Your task to perform on an android device: toggle javascript in the chrome app Image 0: 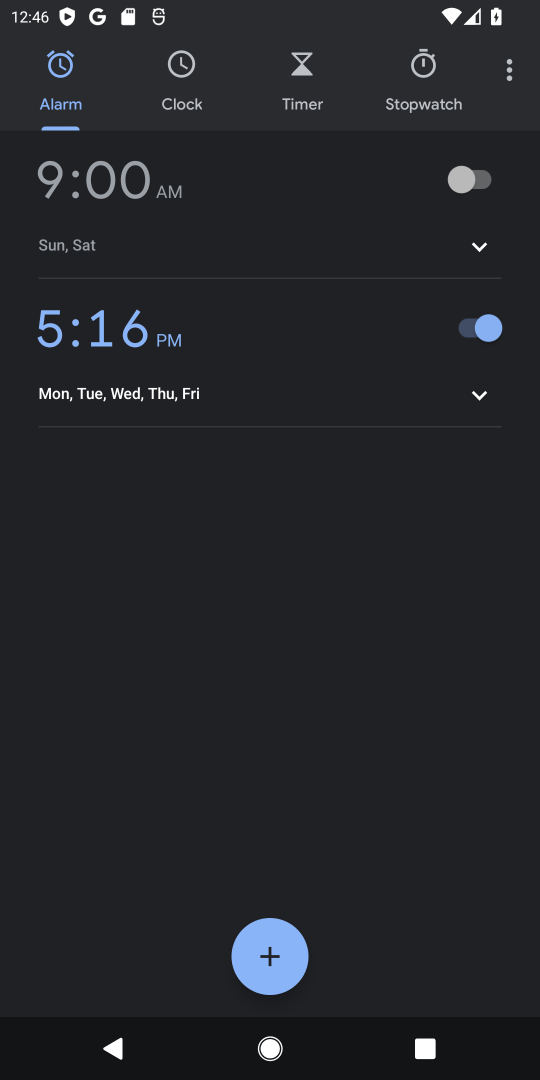
Step 0: press home button
Your task to perform on an android device: toggle javascript in the chrome app Image 1: 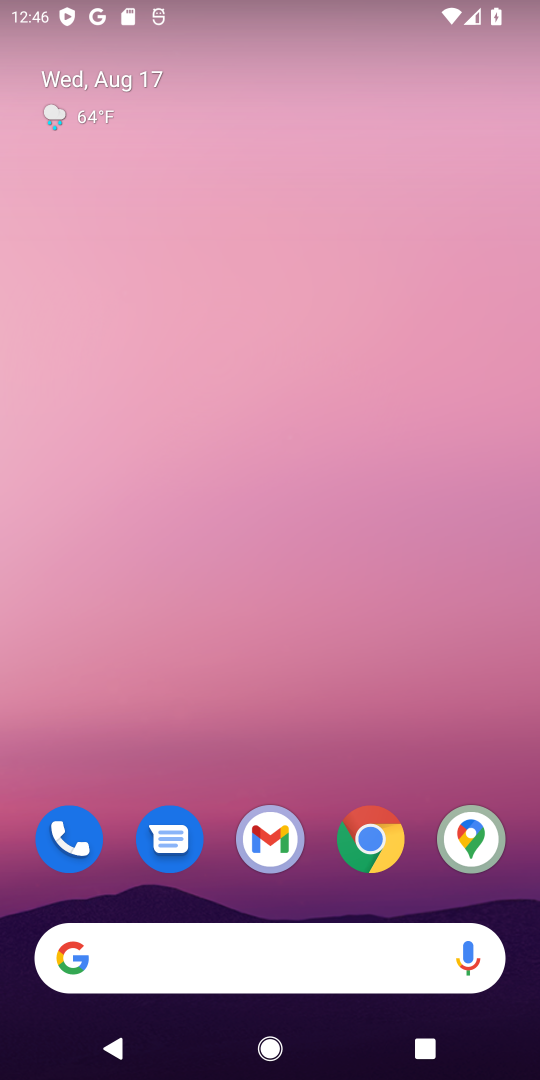
Step 1: click (369, 837)
Your task to perform on an android device: toggle javascript in the chrome app Image 2: 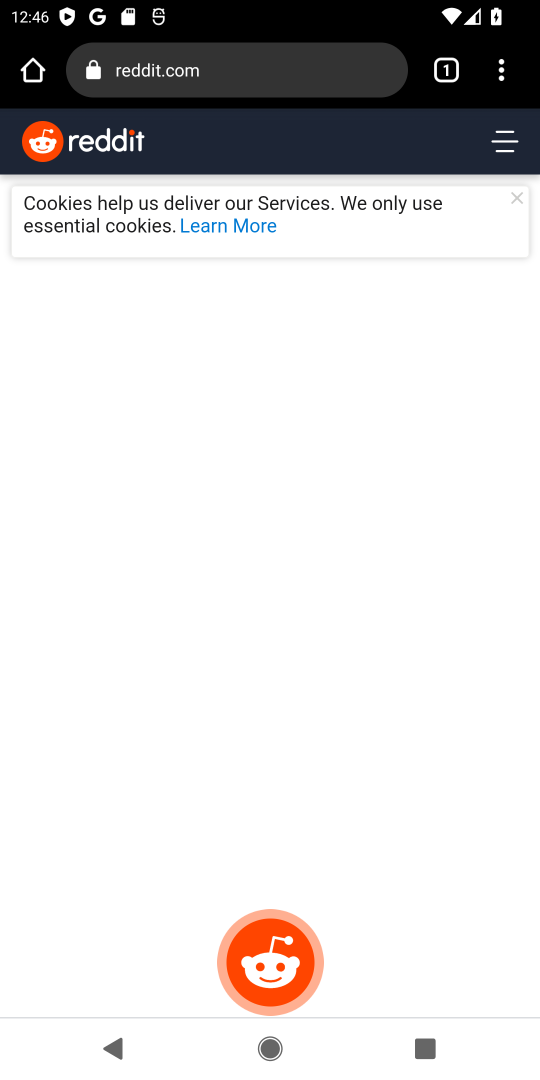
Step 2: drag from (501, 80) to (281, 894)
Your task to perform on an android device: toggle javascript in the chrome app Image 3: 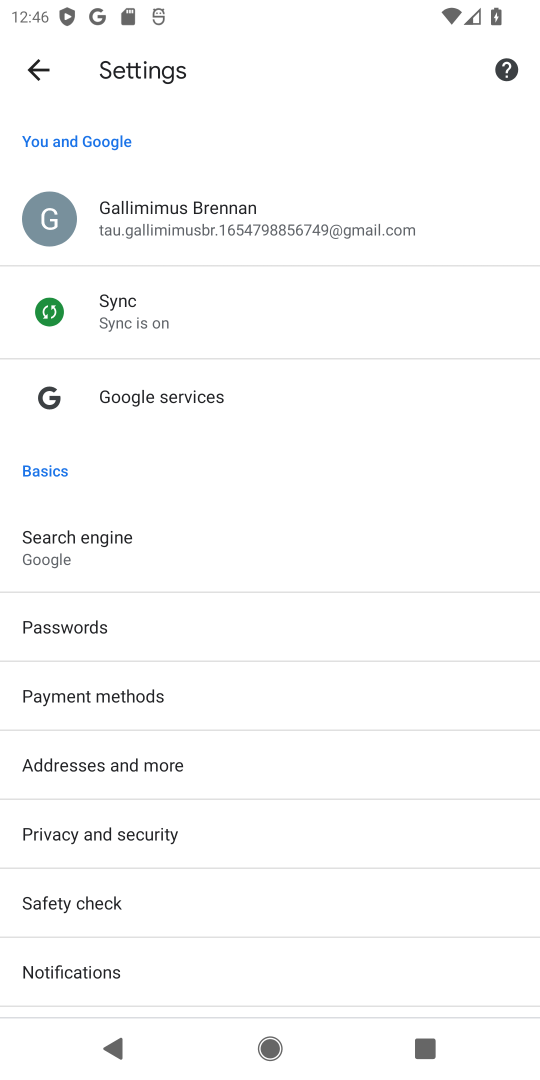
Step 3: drag from (94, 817) to (157, 553)
Your task to perform on an android device: toggle javascript in the chrome app Image 4: 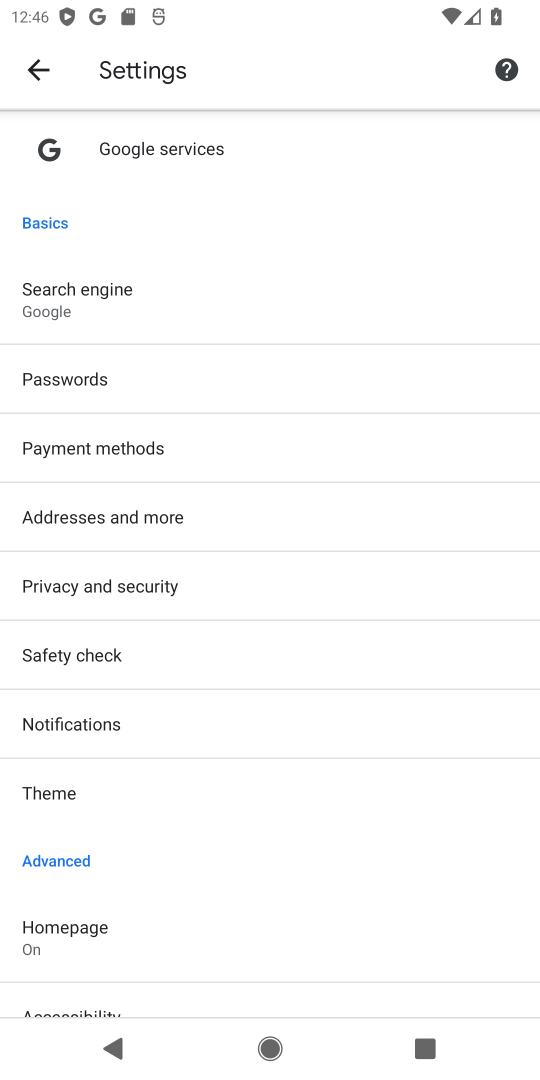
Step 4: drag from (99, 815) to (205, 594)
Your task to perform on an android device: toggle javascript in the chrome app Image 5: 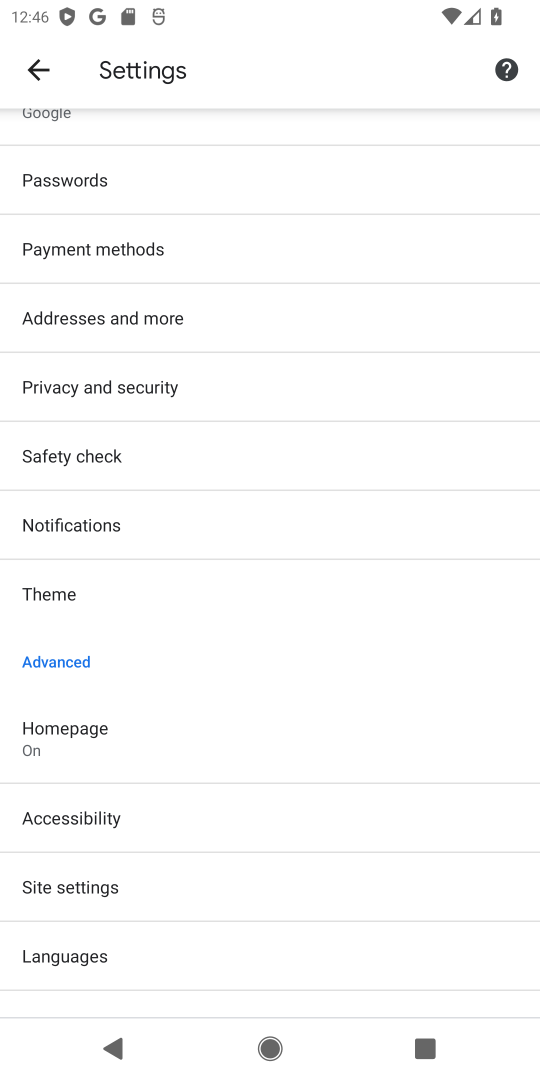
Step 5: click (64, 887)
Your task to perform on an android device: toggle javascript in the chrome app Image 6: 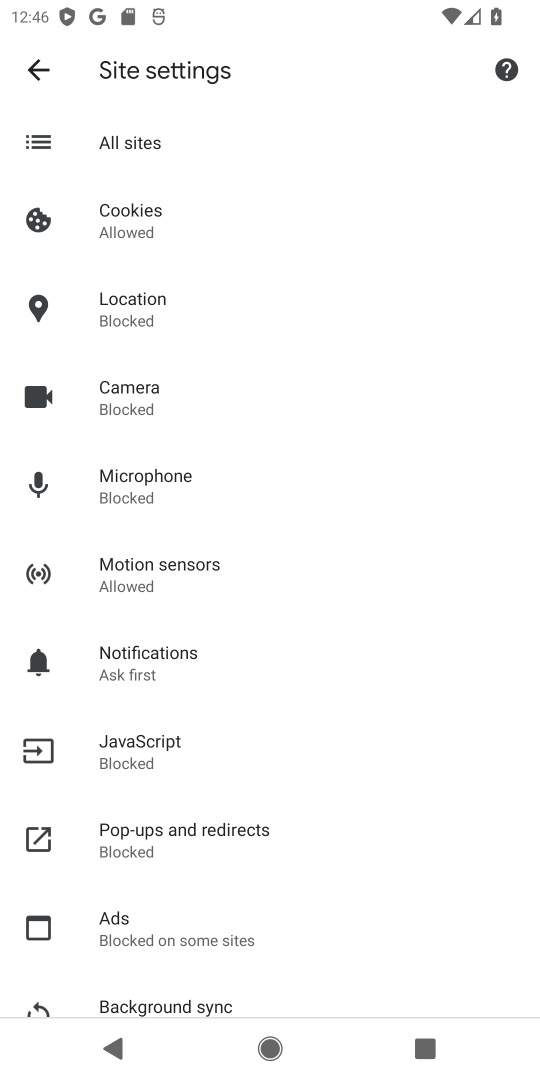
Step 6: click (149, 763)
Your task to perform on an android device: toggle javascript in the chrome app Image 7: 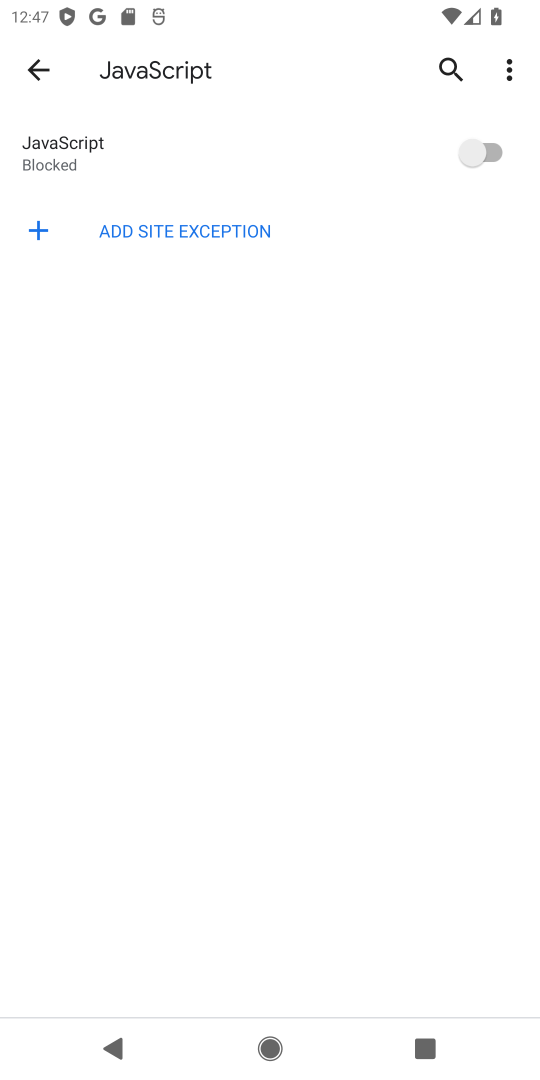
Step 7: click (489, 155)
Your task to perform on an android device: toggle javascript in the chrome app Image 8: 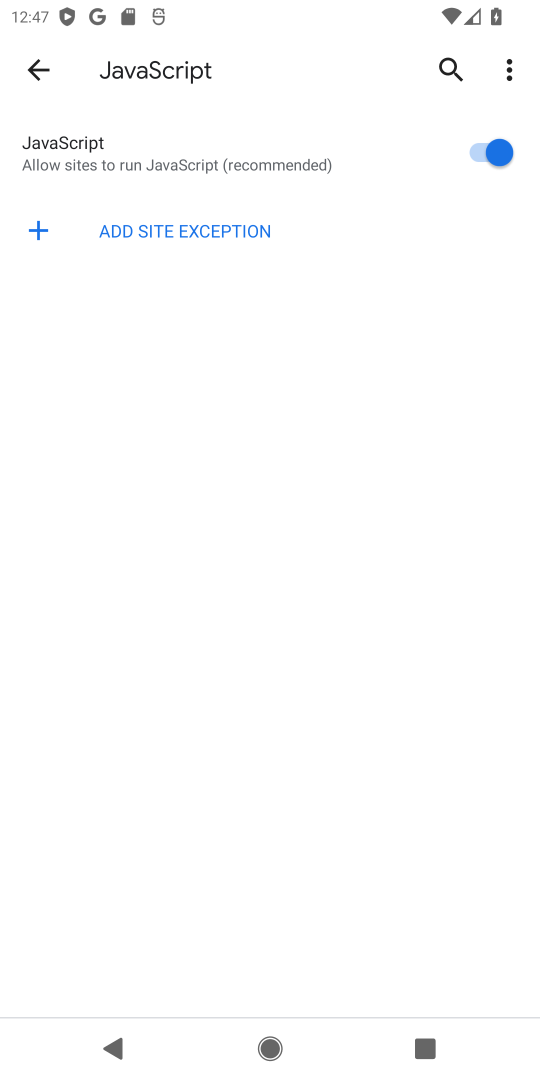
Step 8: task complete